Your task to perform on an android device: open app "Nova Launcher" (install if not already installed) Image 0: 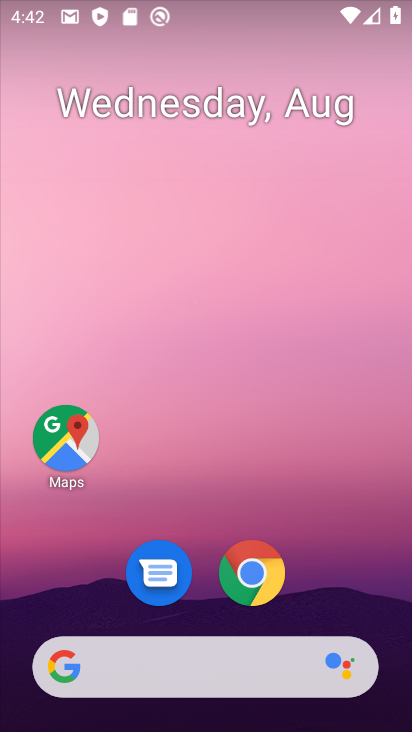
Step 0: drag from (202, 549) to (200, 249)
Your task to perform on an android device: open app "Nova Launcher" (install if not already installed) Image 1: 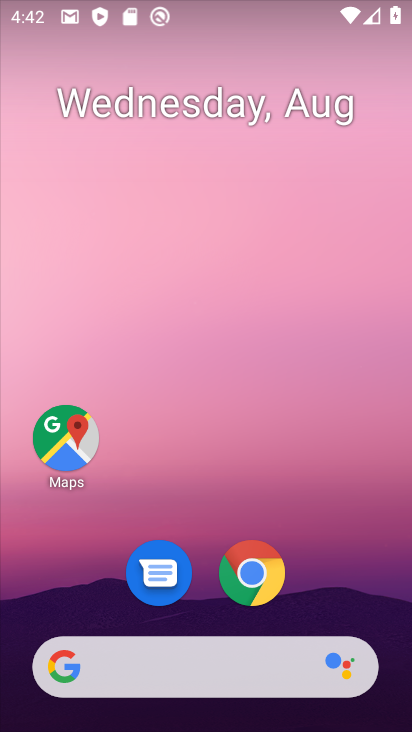
Step 1: drag from (200, 605) to (149, 107)
Your task to perform on an android device: open app "Nova Launcher" (install if not already installed) Image 2: 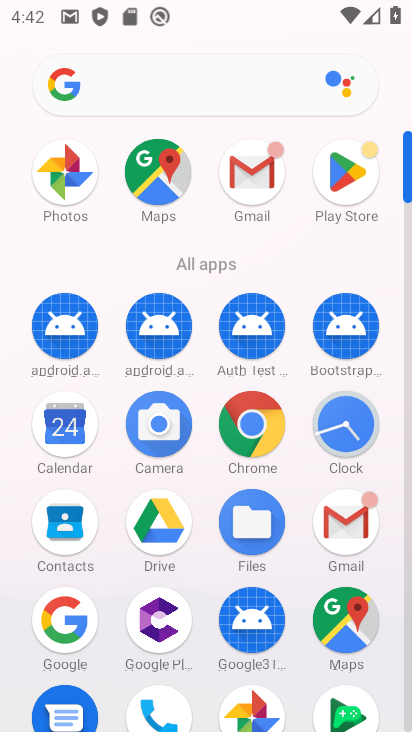
Step 2: click (347, 180)
Your task to perform on an android device: open app "Nova Launcher" (install if not already installed) Image 3: 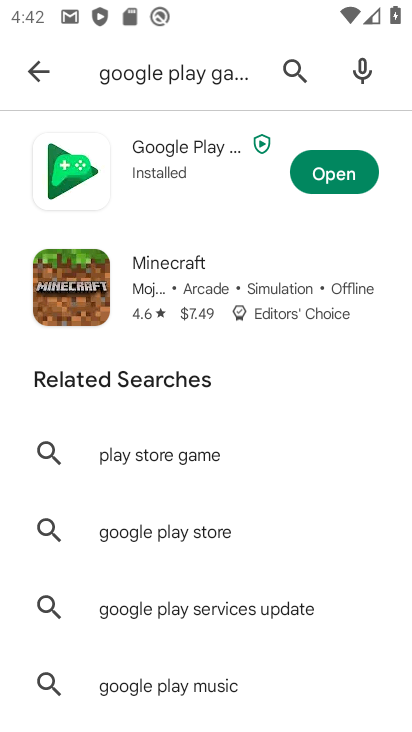
Step 3: click (32, 77)
Your task to perform on an android device: open app "Nova Launcher" (install if not already installed) Image 4: 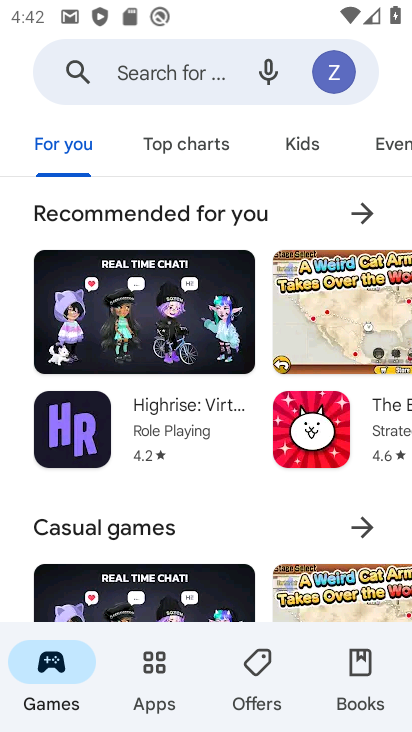
Step 4: click (123, 77)
Your task to perform on an android device: open app "Nova Launcher" (install if not already installed) Image 5: 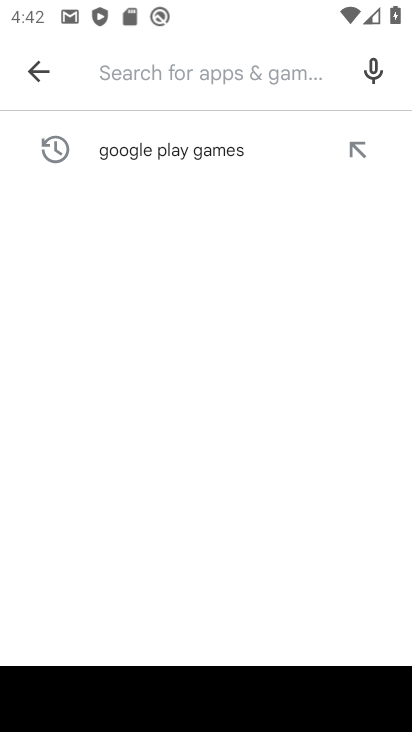
Step 5: type "Nova Launcher"
Your task to perform on an android device: open app "Nova Launcher" (install if not already installed) Image 6: 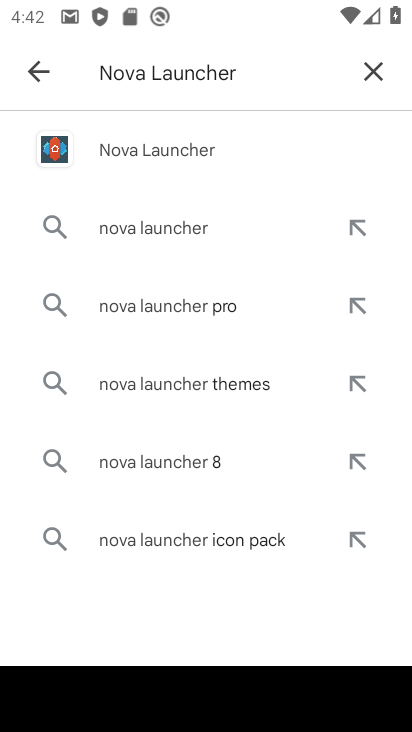
Step 6: click (194, 154)
Your task to perform on an android device: open app "Nova Launcher" (install if not already installed) Image 7: 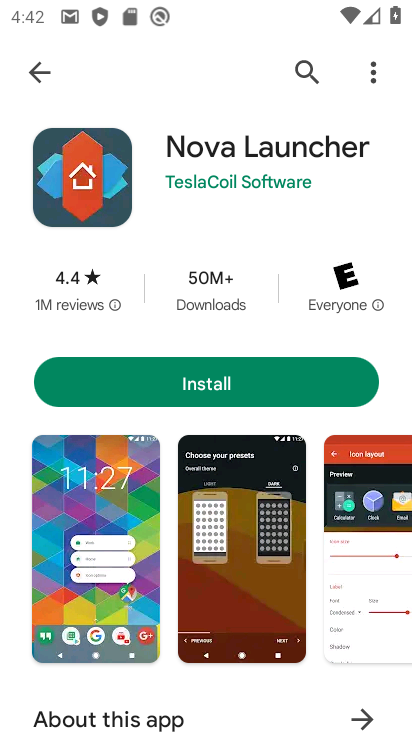
Step 7: click (184, 385)
Your task to perform on an android device: open app "Nova Launcher" (install if not already installed) Image 8: 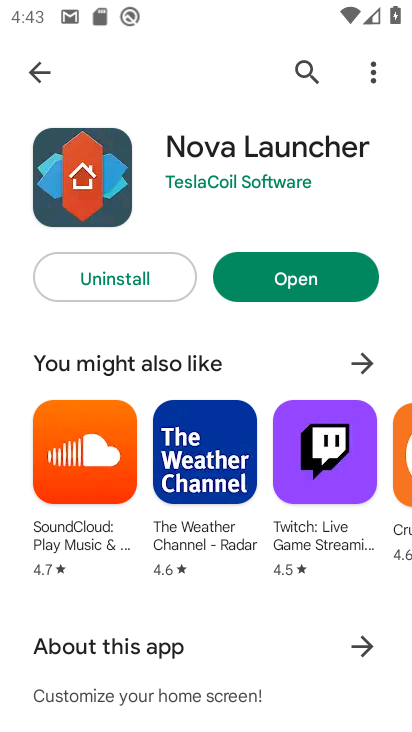
Step 8: click (284, 281)
Your task to perform on an android device: open app "Nova Launcher" (install if not already installed) Image 9: 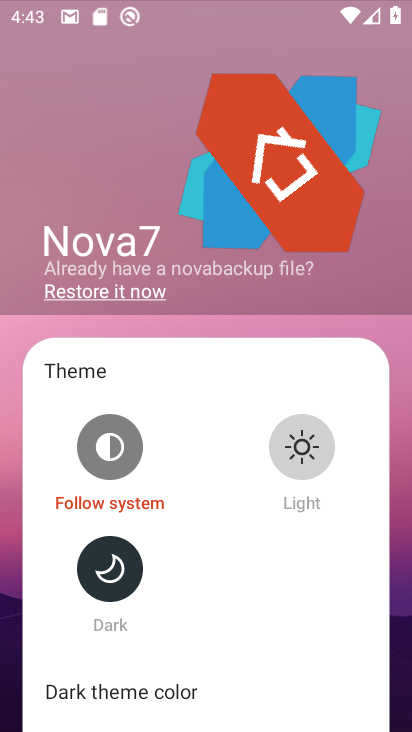
Step 9: task complete